Your task to perform on an android device: Find coffee shops on Maps Image 0: 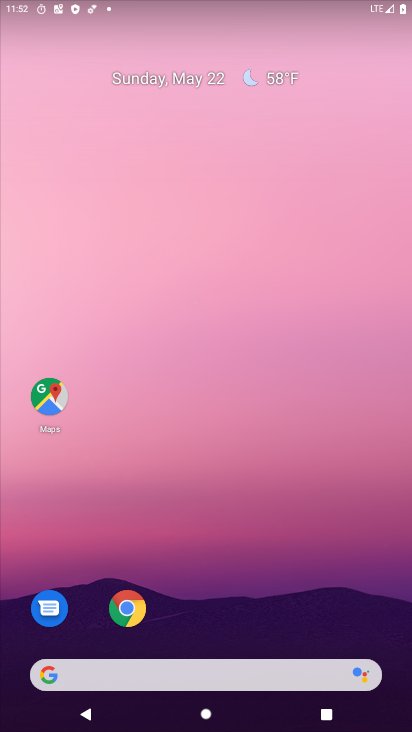
Step 0: click (51, 397)
Your task to perform on an android device: Find coffee shops on Maps Image 1: 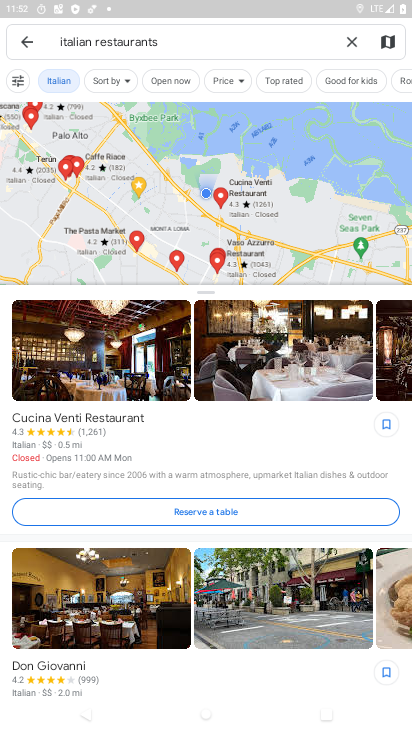
Step 1: click (355, 37)
Your task to perform on an android device: Find coffee shops on Maps Image 2: 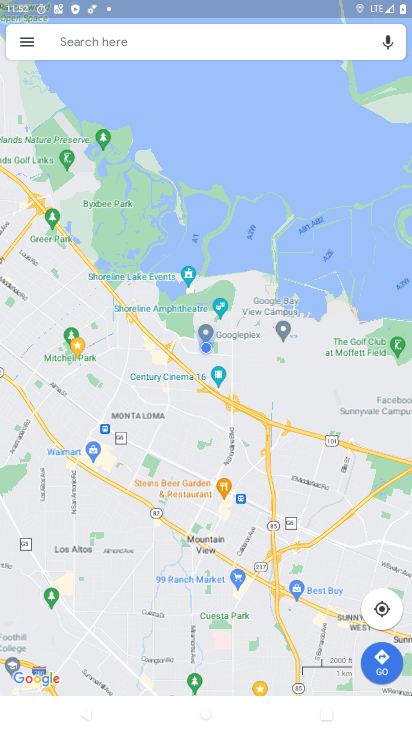
Step 2: click (252, 48)
Your task to perform on an android device: Find coffee shops on Maps Image 3: 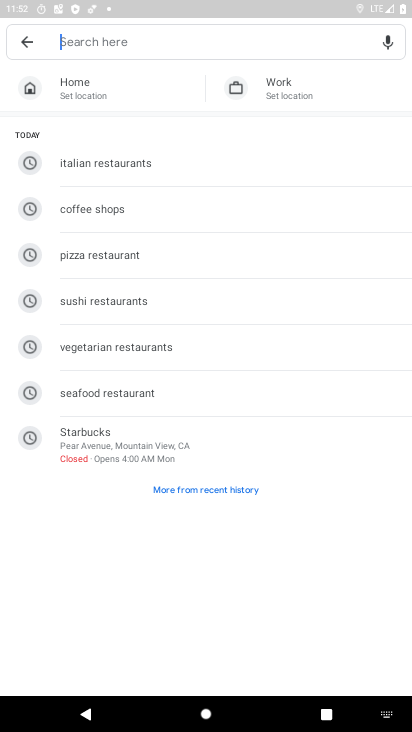
Step 3: click (116, 205)
Your task to perform on an android device: Find coffee shops on Maps Image 4: 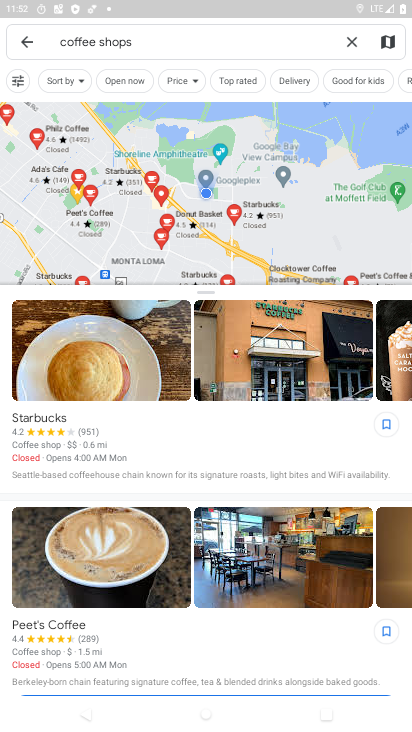
Step 4: task complete